Your task to perform on an android device: Go to sound settings Image 0: 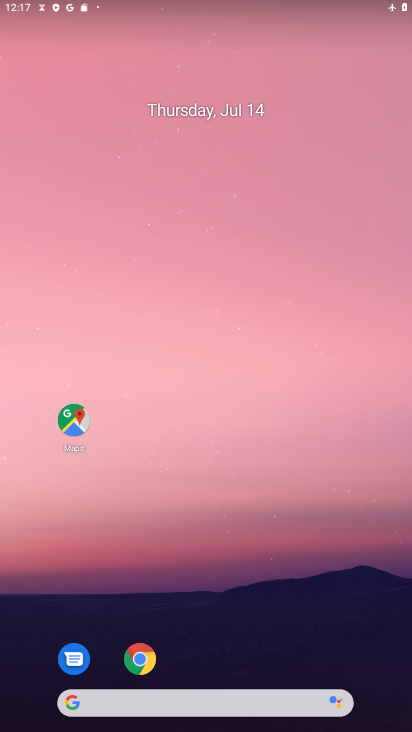
Step 0: drag from (23, 714) to (372, 18)
Your task to perform on an android device: Go to sound settings Image 1: 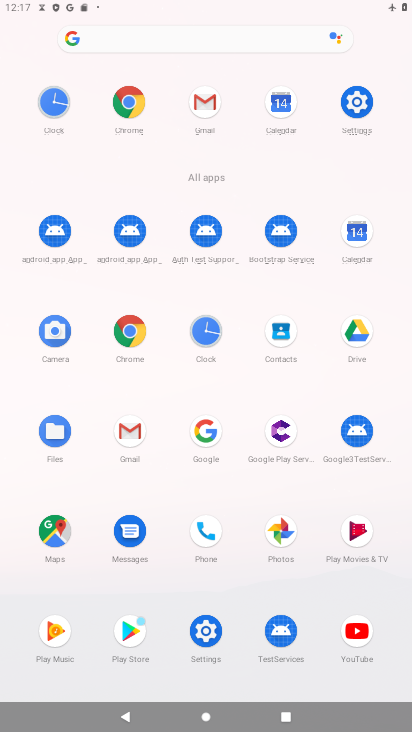
Step 1: click (198, 616)
Your task to perform on an android device: Go to sound settings Image 2: 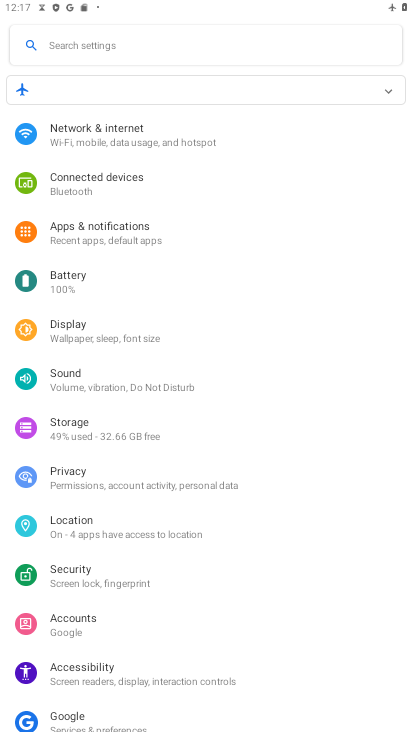
Step 2: click (116, 379)
Your task to perform on an android device: Go to sound settings Image 3: 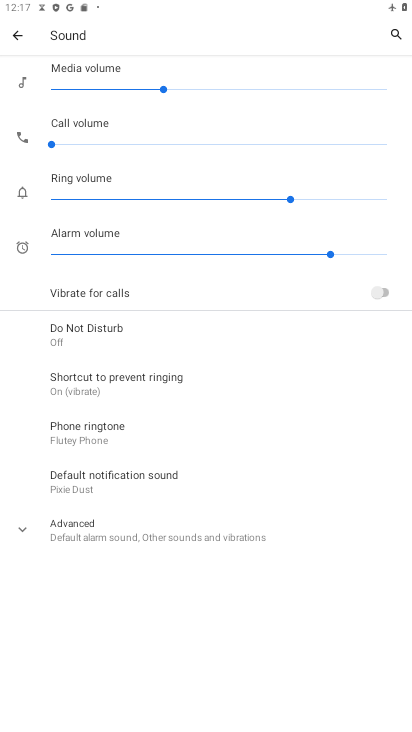
Step 3: task complete